Your task to perform on an android device: Go to Amazon Image 0: 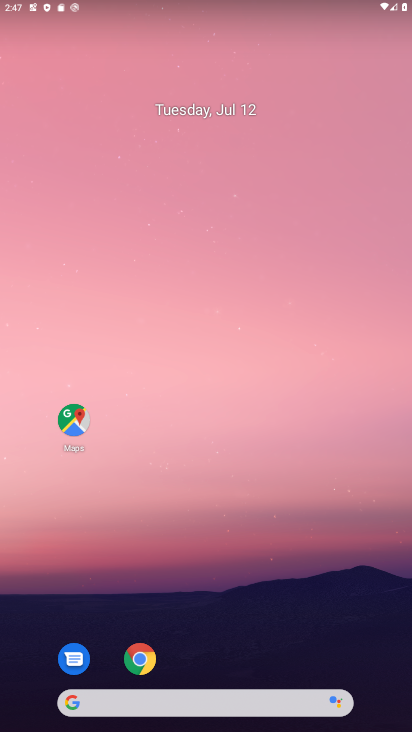
Step 0: press home button
Your task to perform on an android device: Go to Amazon Image 1: 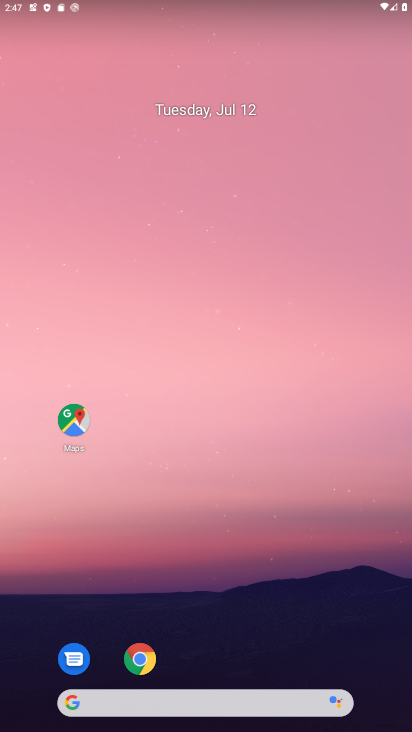
Step 1: press back button
Your task to perform on an android device: Go to Amazon Image 2: 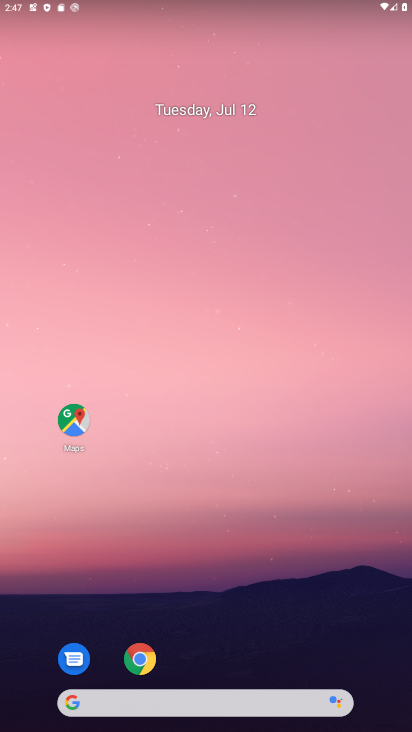
Step 2: press back button
Your task to perform on an android device: Go to Amazon Image 3: 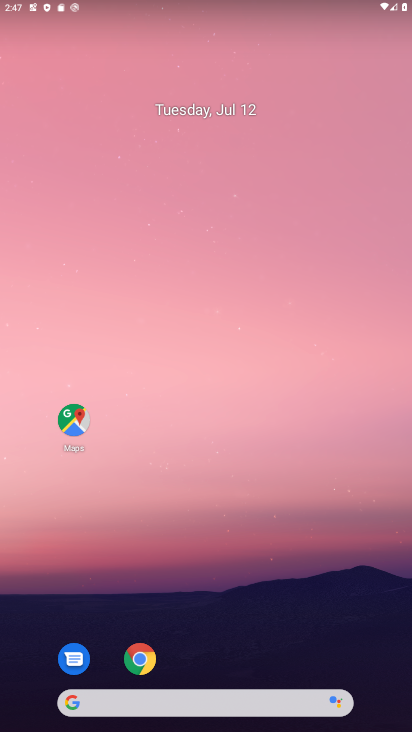
Step 3: drag from (142, 304) to (131, 205)
Your task to perform on an android device: Go to Amazon Image 4: 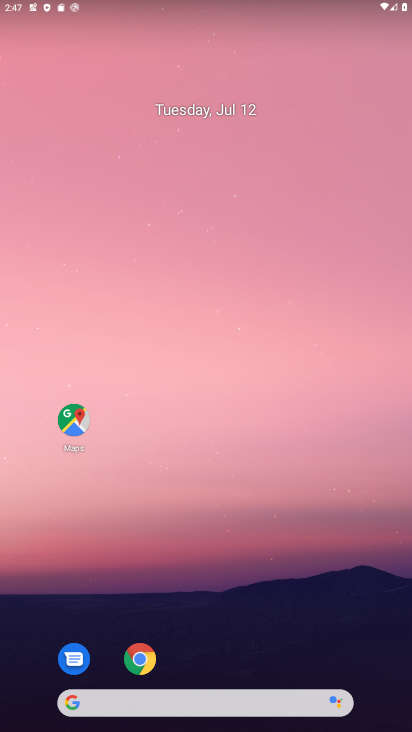
Step 4: drag from (225, 609) to (159, 143)
Your task to perform on an android device: Go to Amazon Image 5: 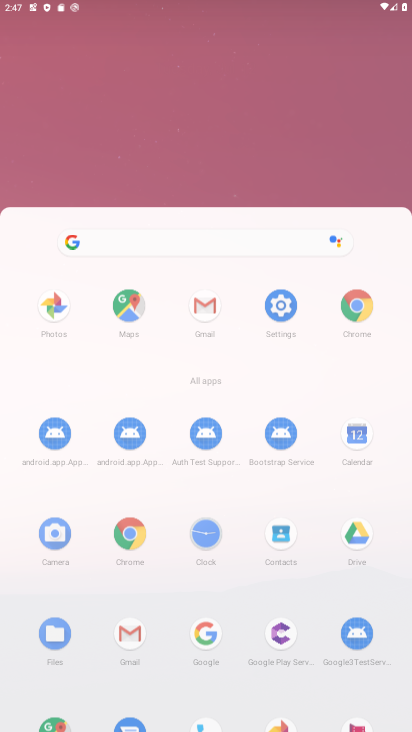
Step 5: drag from (260, 595) to (192, 48)
Your task to perform on an android device: Go to Amazon Image 6: 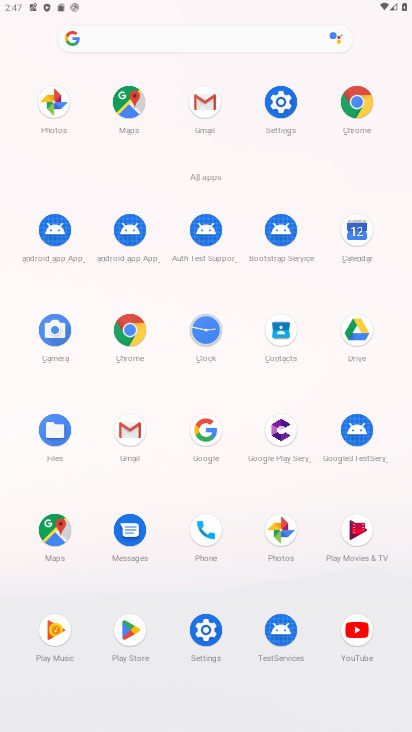
Step 6: click (361, 109)
Your task to perform on an android device: Go to Amazon Image 7: 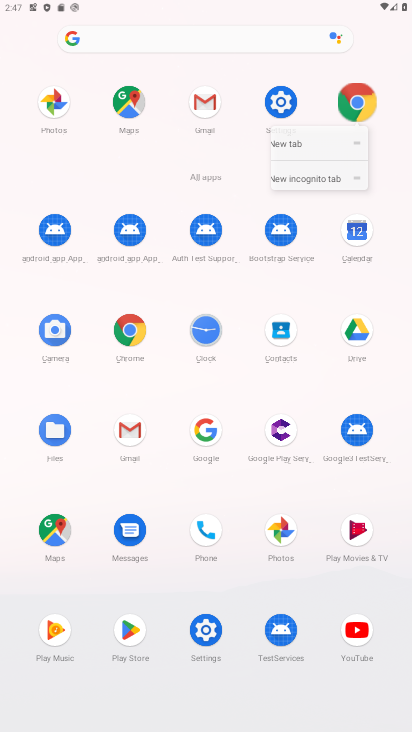
Step 7: click (363, 108)
Your task to perform on an android device: Go to Amazon Image 8: 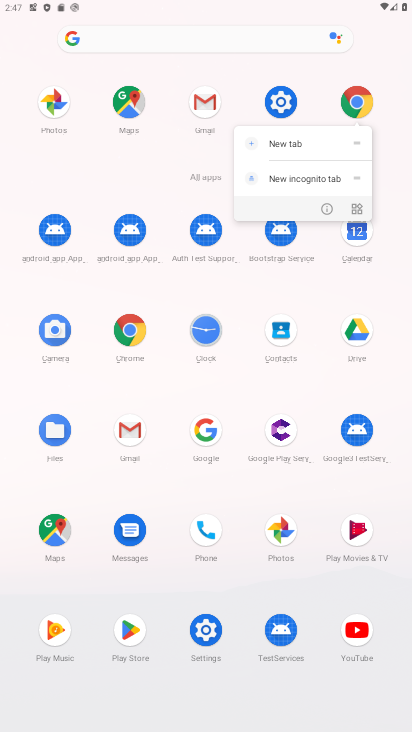
Step 8: click (364, 112)
Your task to perform on an android device: Go to Amazon Image 9: 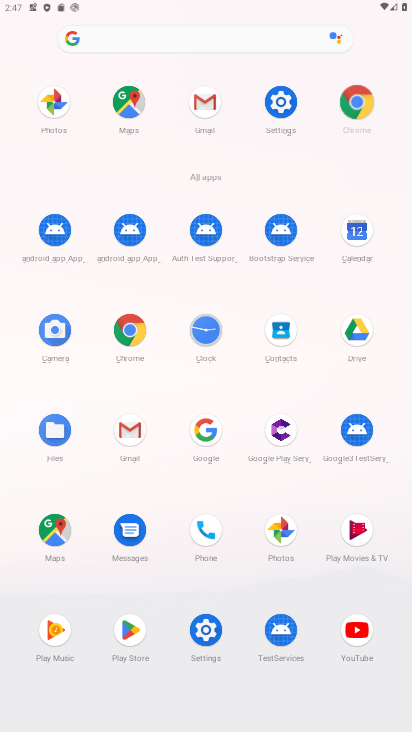
Step 9: click (366, 115)
Your task to perform on an android device: Go to Amazon Image 10: 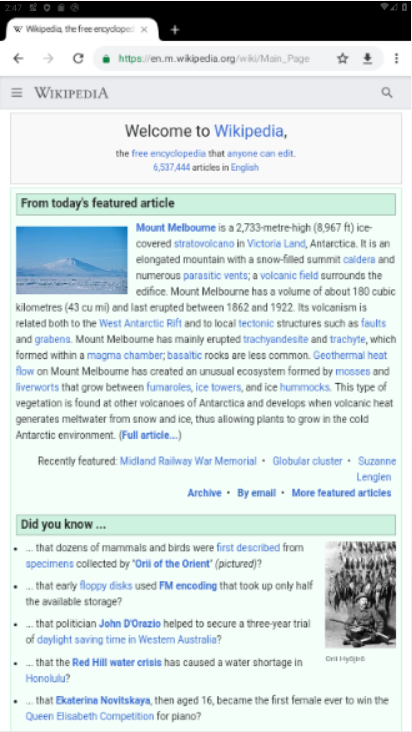
Step 10: click (352, 103)
Your task to perform on an android device: Go to Amazon Image 11: 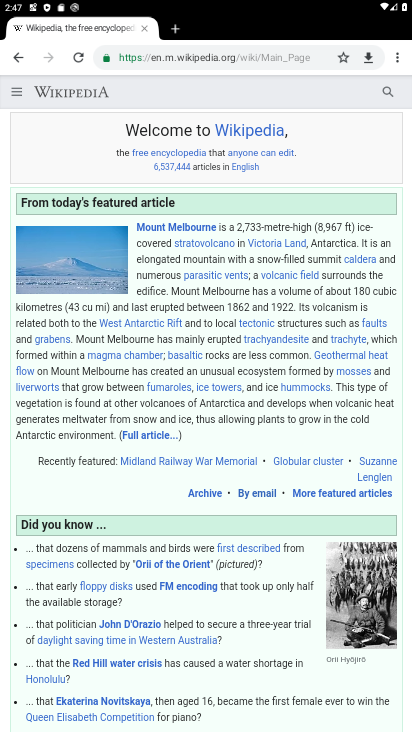
Step 11: press back button
Your task to perform on an android device: Go to Amazon Image 12: 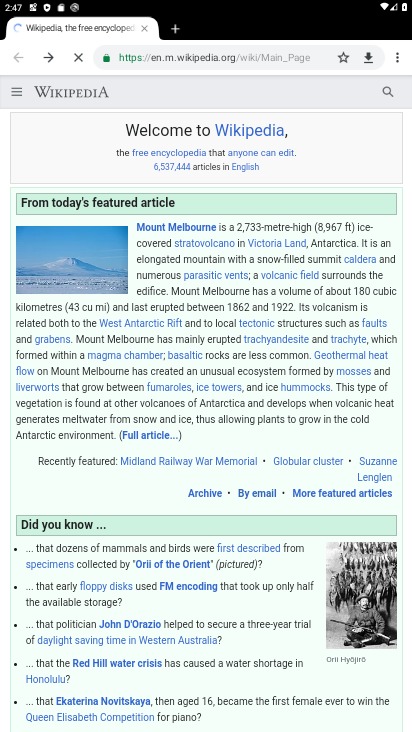
Step 12: press back button
Your task to perform on an android device: Go to Amazon Image 13: 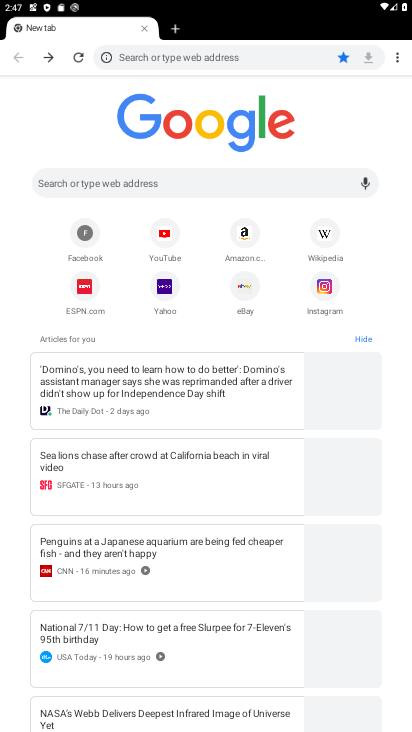
Step 13: press back button
Your task to perform on an android device: Go to Amazon Image 14: 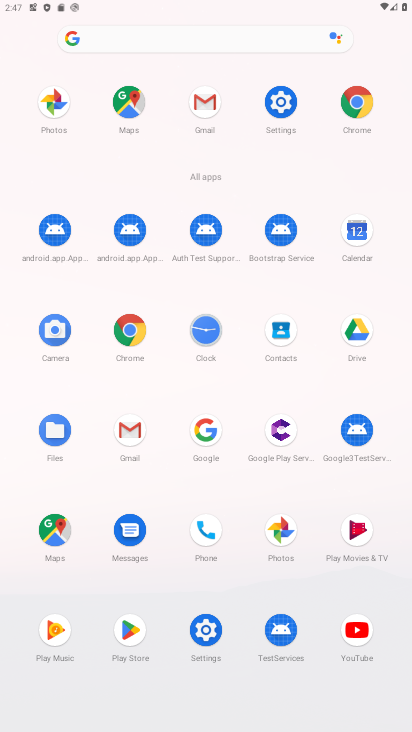
Step 14: click (359, 102)
Your task to perform on an android device: Go to Amazon Image 15: 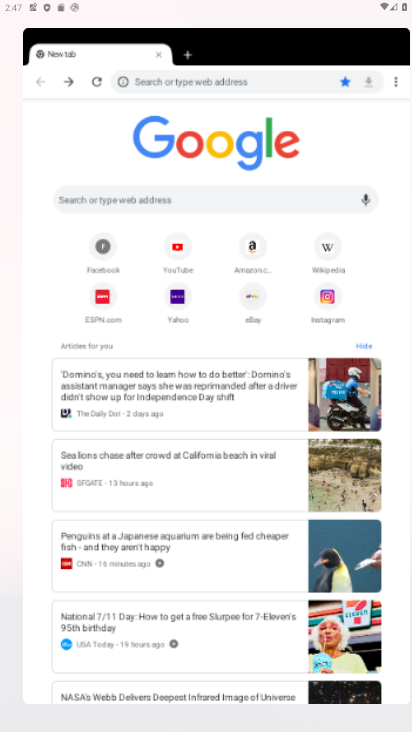
Step 15: click (360, 101)
Your task to perform on an android device: Go to Amazon Image 16: 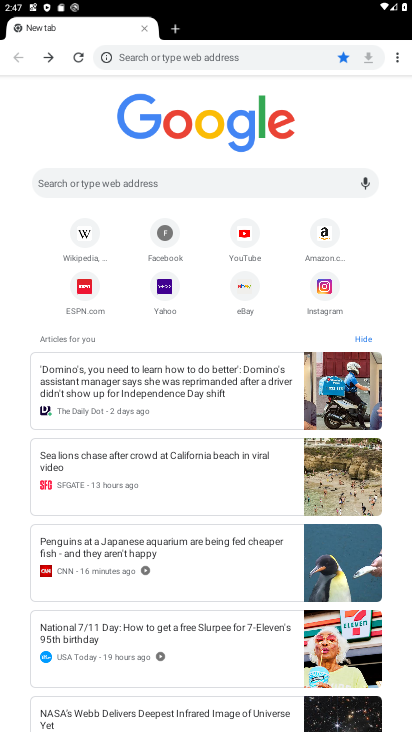
Step 16: click (389, 53)
Your task to perform on an android device: Go to Amazon Image 17: 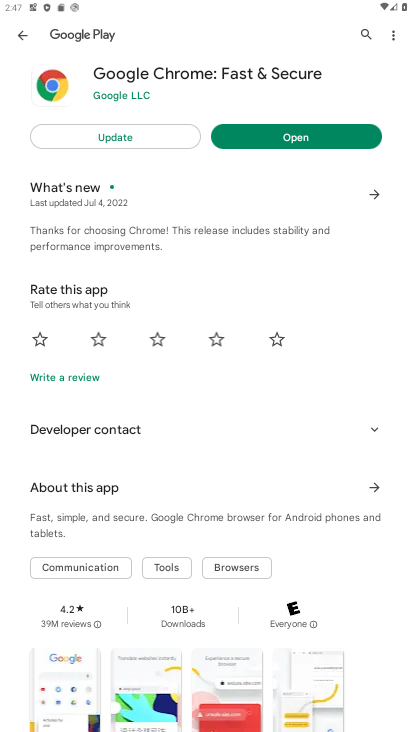
Step 17: click (3, 35)
Your task to perform on an android device: Go to Amazon Image 18: 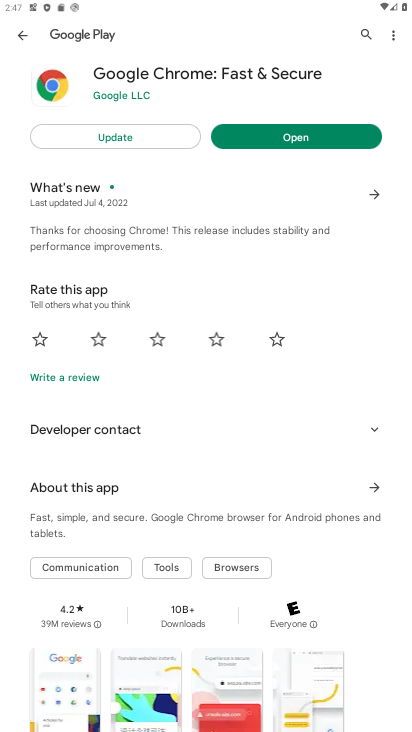
Step 18: click (12, 35)
Your task to perform on an android device: Go to Amazon Image 19: 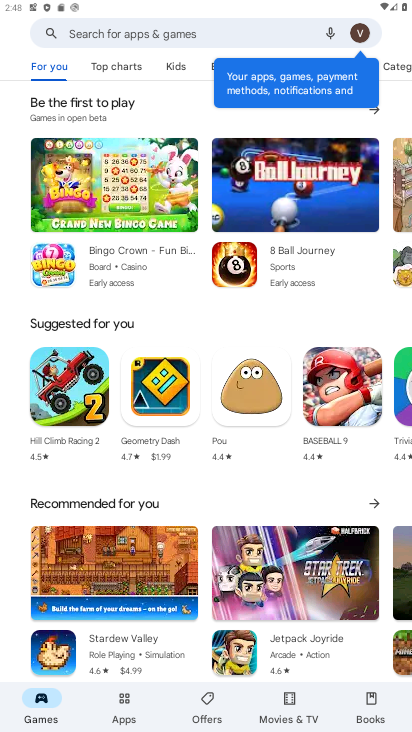
Step 19: press back button
Your task to perform on an android device: Go to Amazon Image 20: 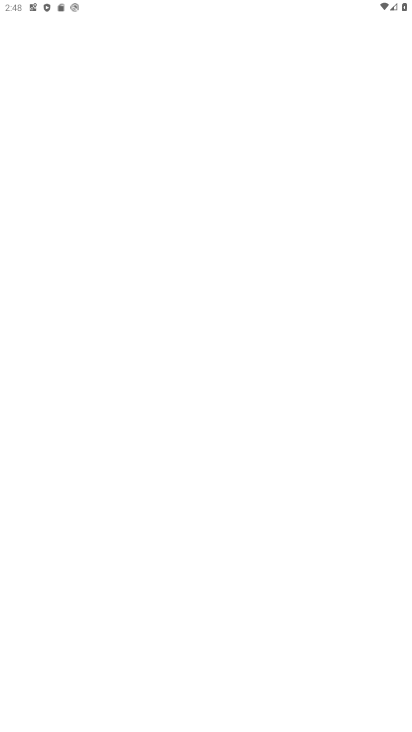
Step 20: press back button
Your task to perform on an android device: Go to Amazon Image 21: 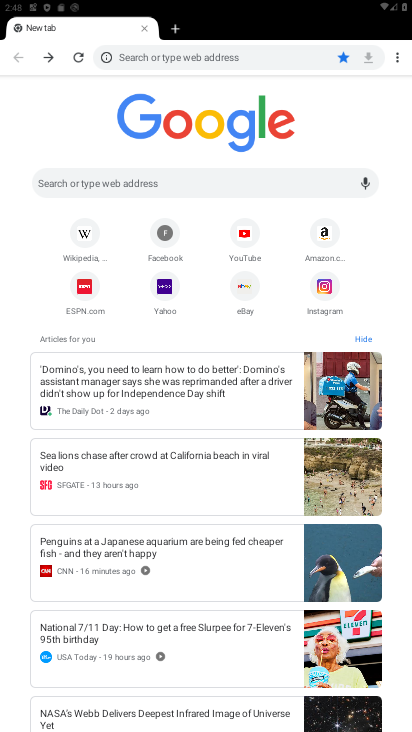
Step 21: press back button
Your task to perform on an android device: Go to Amazon Image 22: 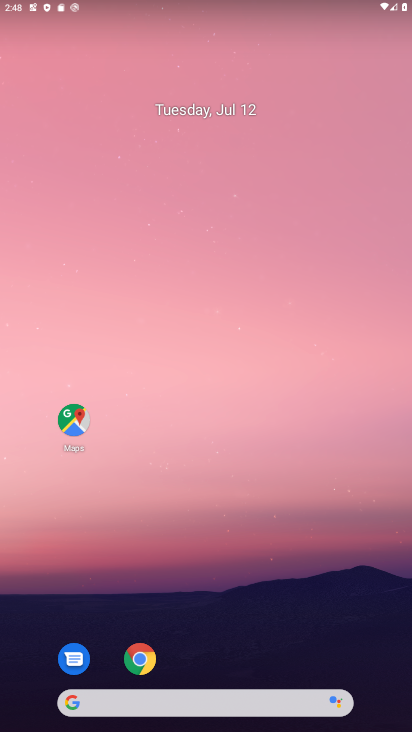
Step 22: drag from (255, 688) to (211, 151)
Your task to perform on an android device: Go to Amazon Image 23: 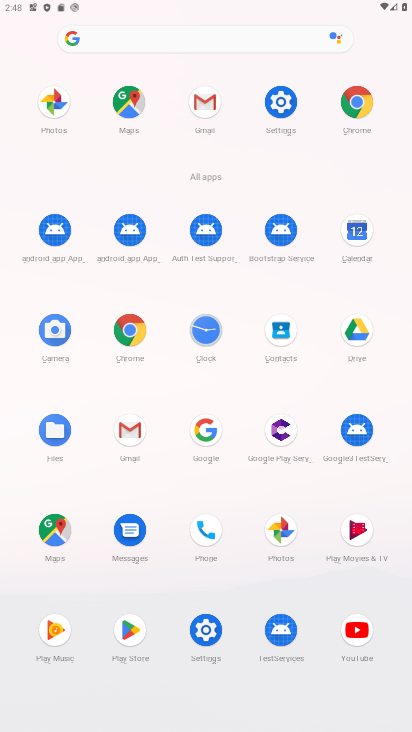
Step 23: click (355, 103)
Your task to perform on an android device: Go to Amazon Image 24: 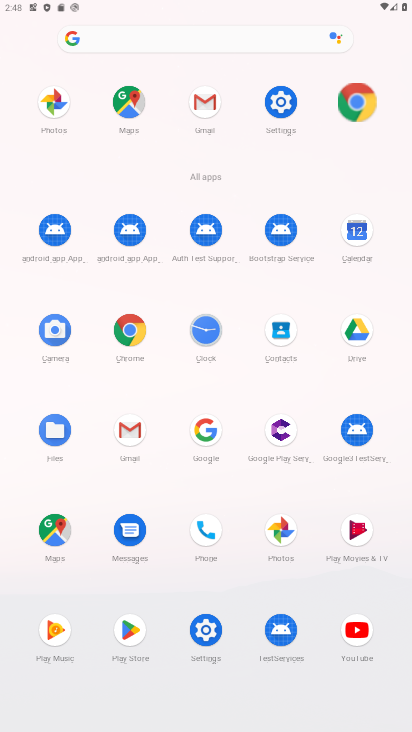
Step 24: click (357, 105)
Your task to perform on an android device: Go to Amazon Image 25: 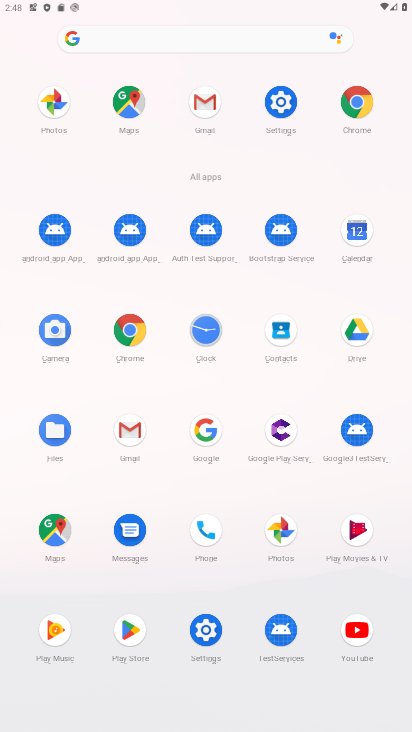
Step 25: click (357, 105)
Your task to perform on an android device: Go to Amazon Image 26: 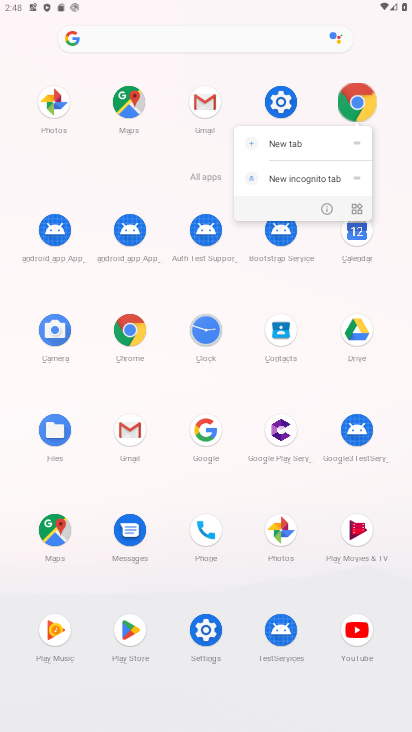
Step 26: click (361, 98)
Your task to perform on an android device: Go to Amazon Image 27: 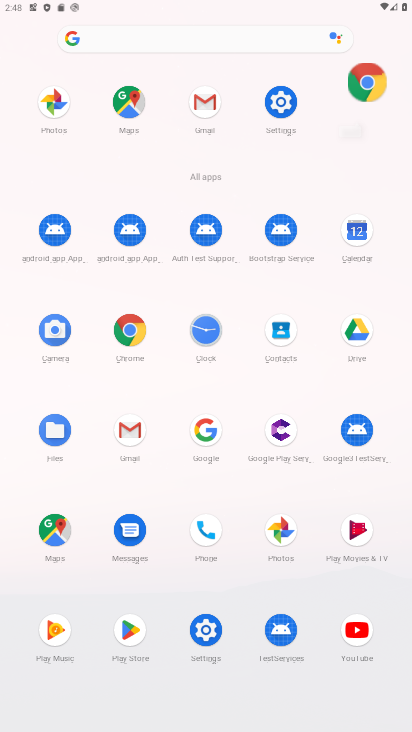
Step 27: click (373, 78)
Your task to perform on an android device: Go to Amazon Image 28: 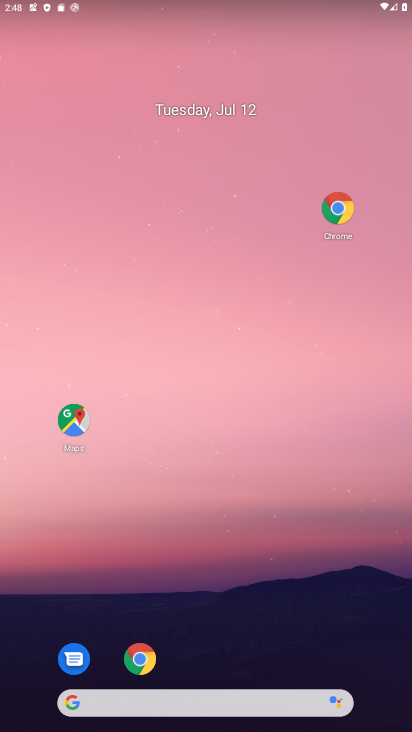
Step 28: drag from (272, 683) to (201, 79)
Your task to perform on an android device: Go to Amazon Image 29: 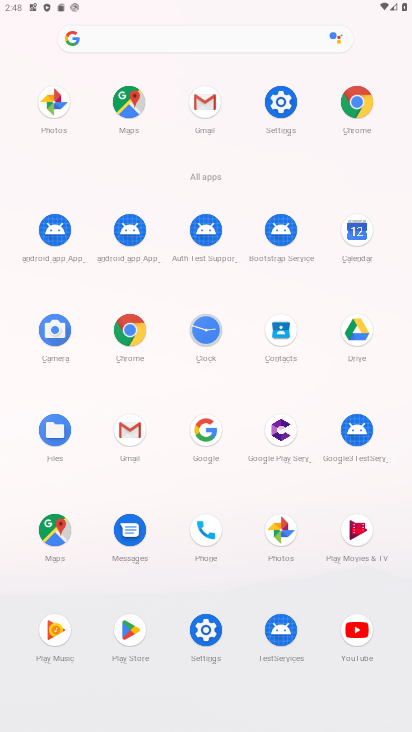
Step 29: click (122, 333)
Your task to perform on an android device: Go to Amazon Image 30: 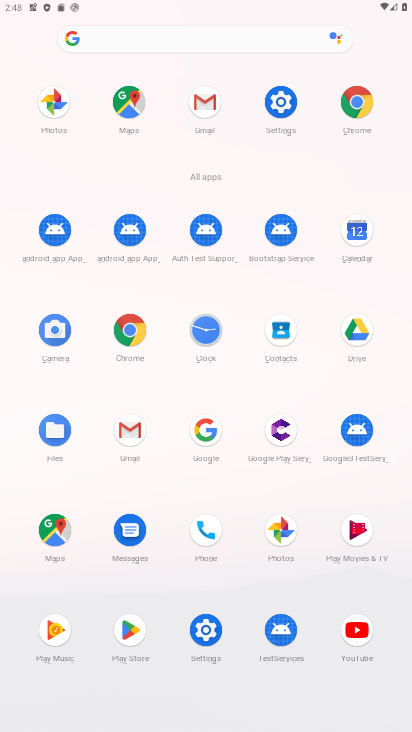
Step 30: click (122, 334)
Your task to perform on an android device: Go to Amazon Image 31: 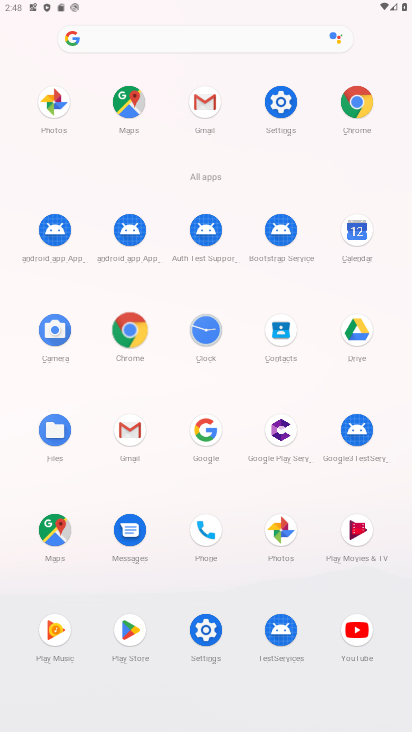
Step 31: click (122, 335)
Your task to perform on an android device: Go to Amazon Image 32: 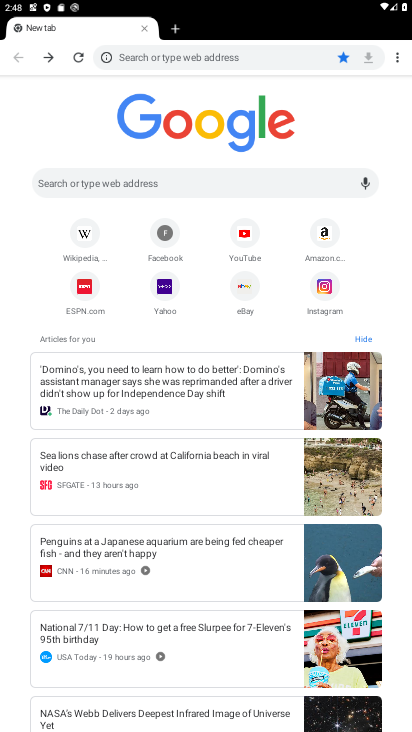
Step 32: click (129, 333)
Your task to perform on an android device: Go to Amazon Image 33: 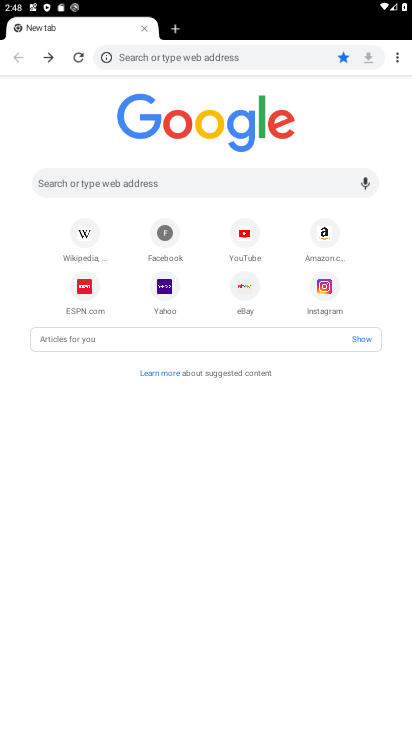
Step 33: click (323, 243)
Your task to perform on an android device: Go to Amazon Image 34: 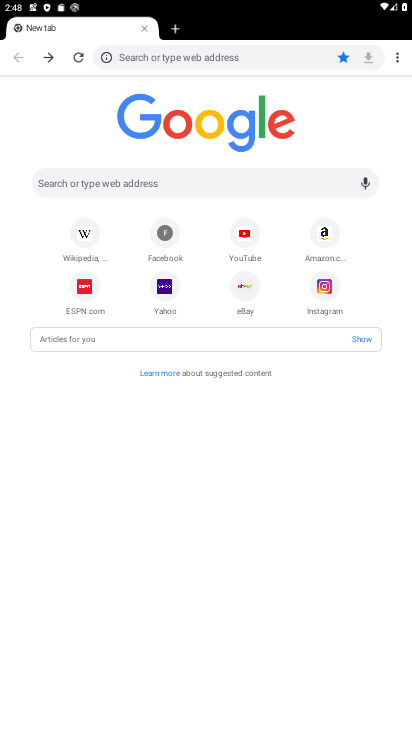
Step 34: click (325, 236)
Your task to perform on an android device: Go to Amazon Image 35: 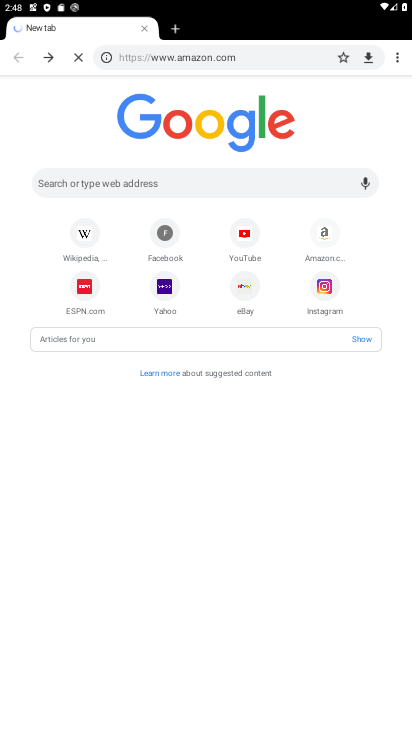
Step 35: click (326, 233)
Your task to perform on an android device: Go to Amazon Image 36: 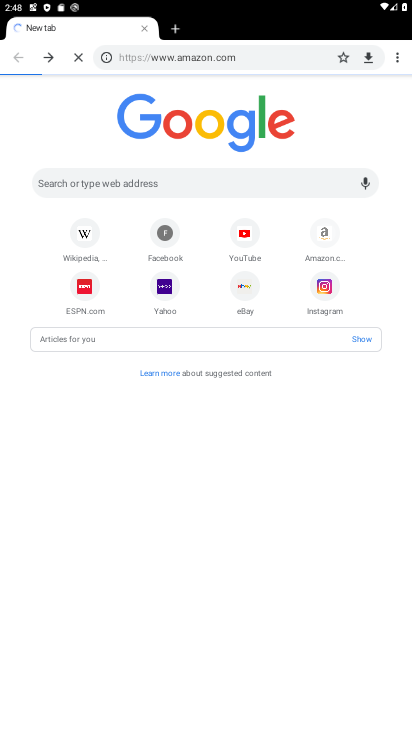
Step 36: click (326, 229)
Your task to perform on an android device: Go to Amazon Image 37: 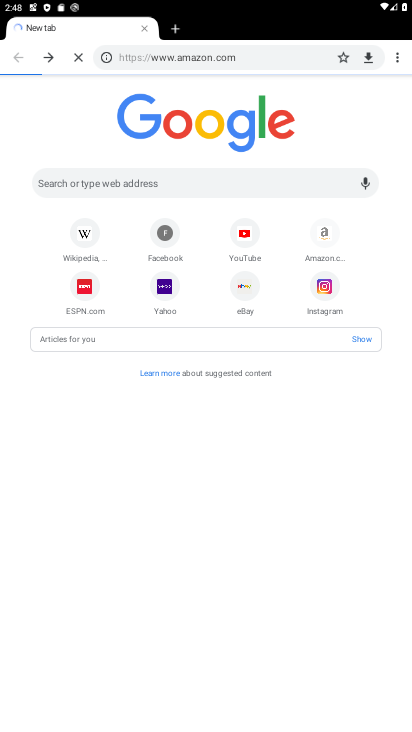
Step 37: click (327, 221)
Your task to perform on an android device: Go to Amazon Image 38: 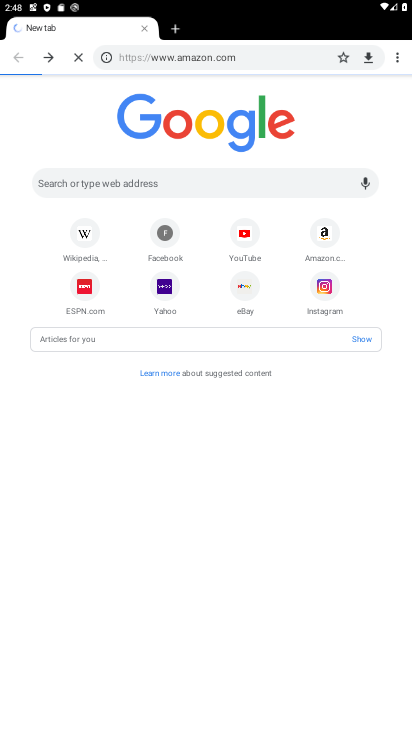
Step 38: click (334, 221)
Your task to perform on an android device: Go to Amazon Image 39: 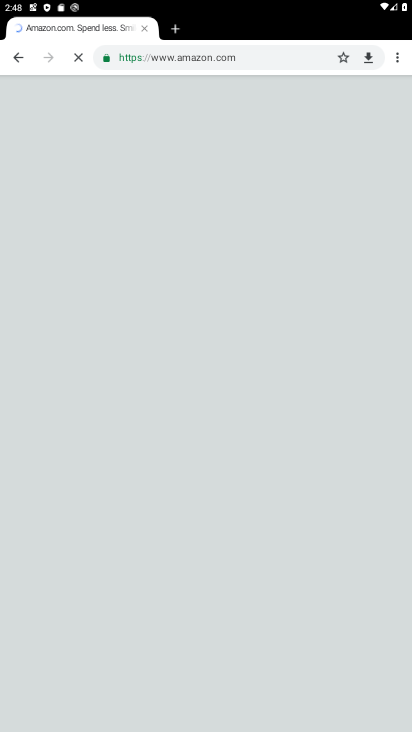
Step 39: click (335, 221)
Your task to perform on an android device: Go to Amazon Image 40: 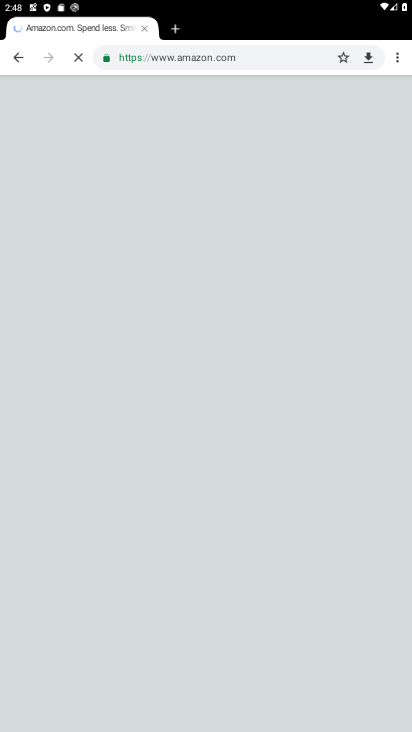
Step 40: click (336, 222)
Your task to perform on an android device: Go to Amazon Image 41: 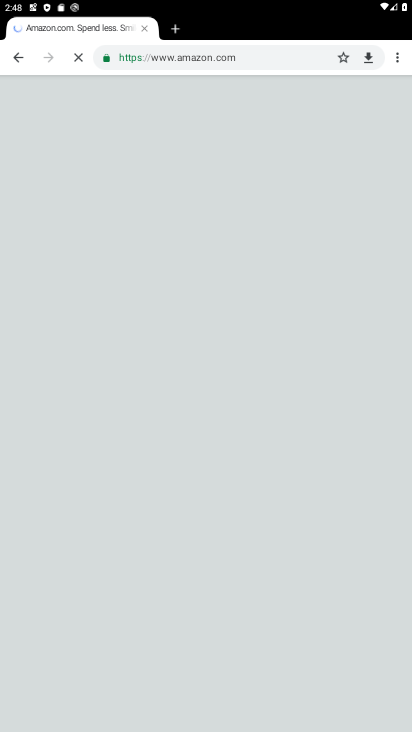
Step 41: click (336, 222)
Your task to perform on an android device: Go to Amazon Image 42: 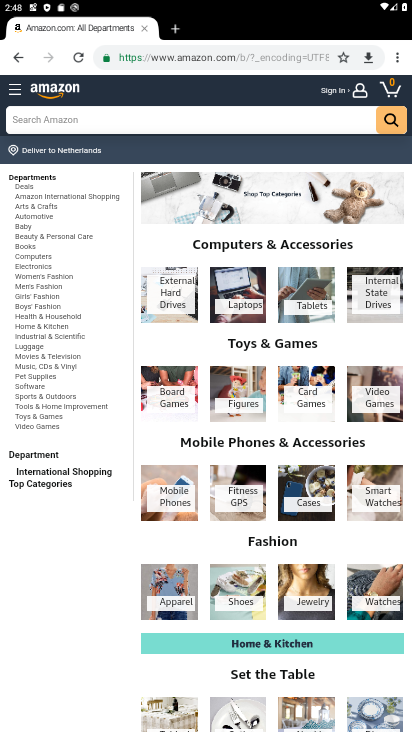
Step 42: task complete